Your task to perform on an android device: refresh tabs in the chrome app Image 0: 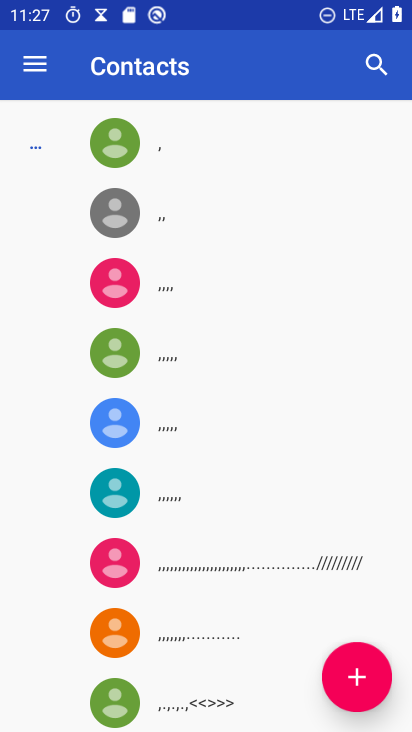
Step 0: press home button
Your task to perform on an android device: refresh tabs in the chrome app Image 1: 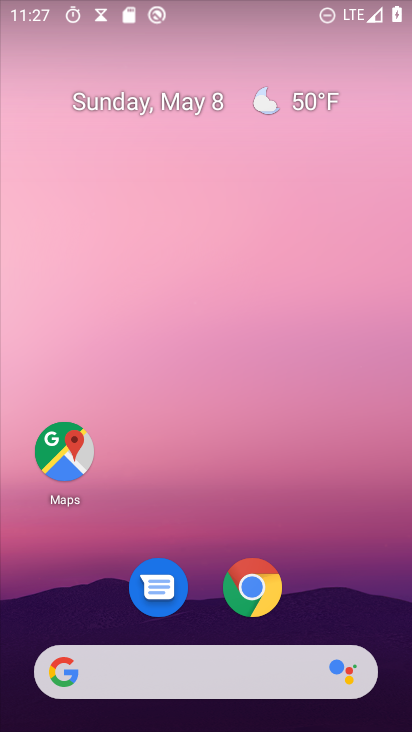
Step 1: click (262, 588)
Your task to perform on an android device: refresh tabs in the chrome app Image 2: 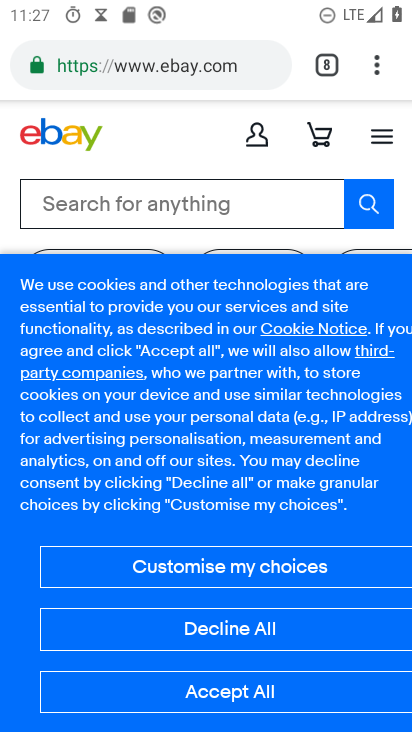
Step 2: click (373, 65)
Your task to perform on an android device: refresh tabs in the chrome app Image 3: 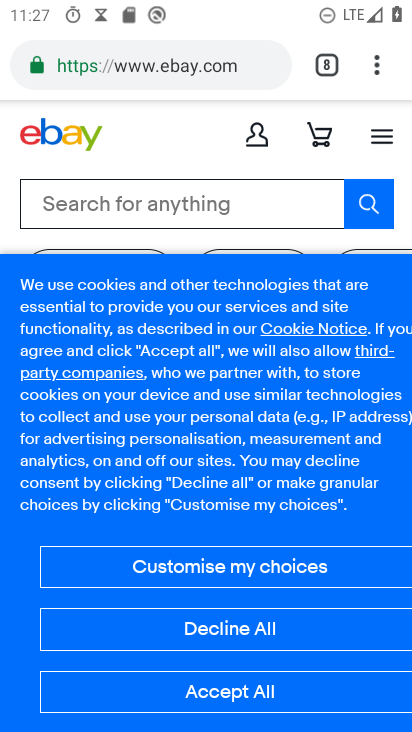
Step 3: click (373, 65)
Your task to perform on an android device: refresh tabs in the chrome app Image 4: 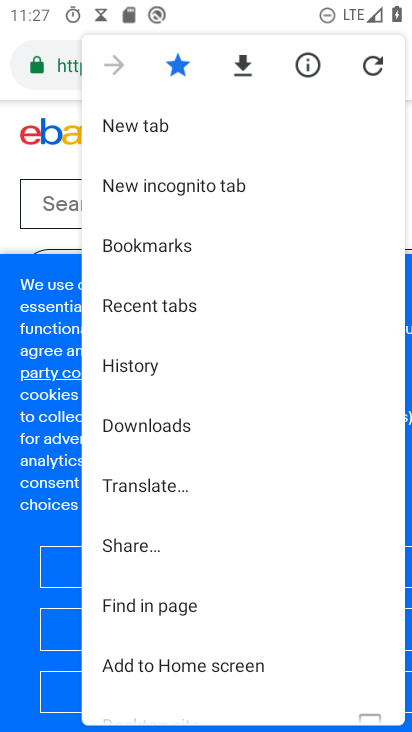
Step 4: task complete